Your task to perform on an android device: search for starred emails in the gmail app Image 0: 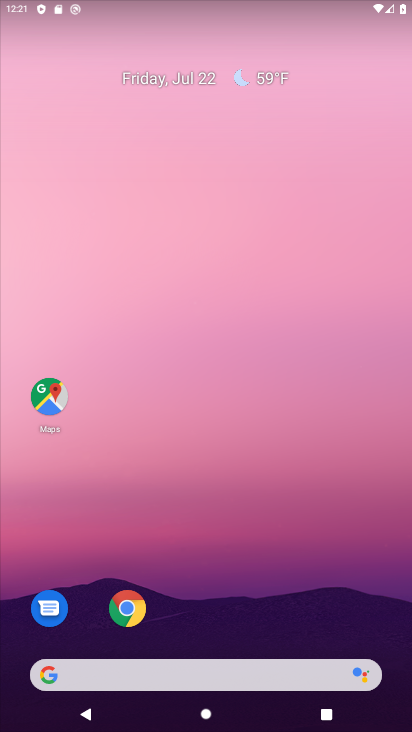
Step 0: drag from (225, 640) to (202, 111)
Your task to perform on an android device: search for starred emails in the gmail app Image 1: 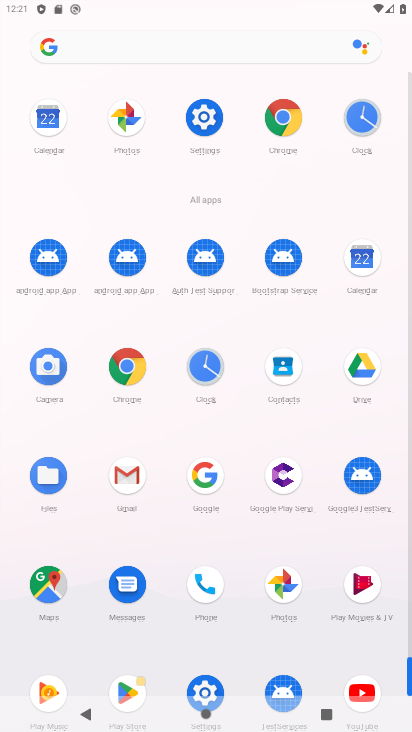
Step 1: click (130, 488)
Your task to perform on an android device: search for starred emails in the gmail app Image 2: 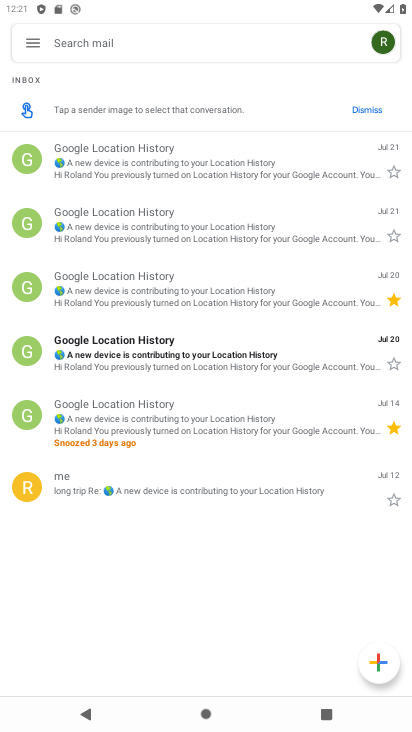
Step 2: click (27, 42)
Your task to perform on an android device: search for starred emails in the gmail app Image 3: 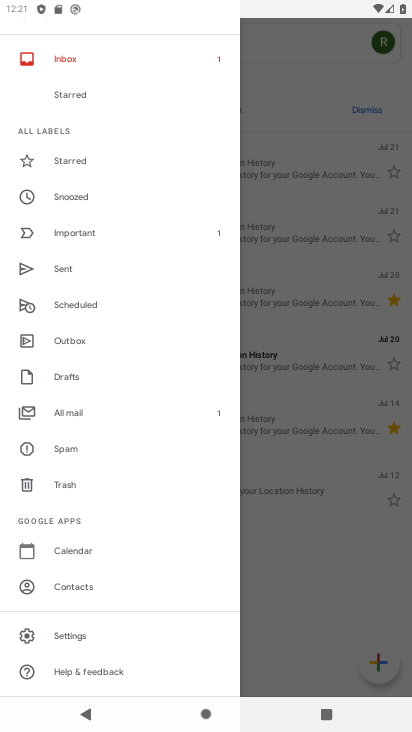
Step 3: click (79, 157)
Your task to perform on an android device: search for starred emails in the gmail app Image 4: 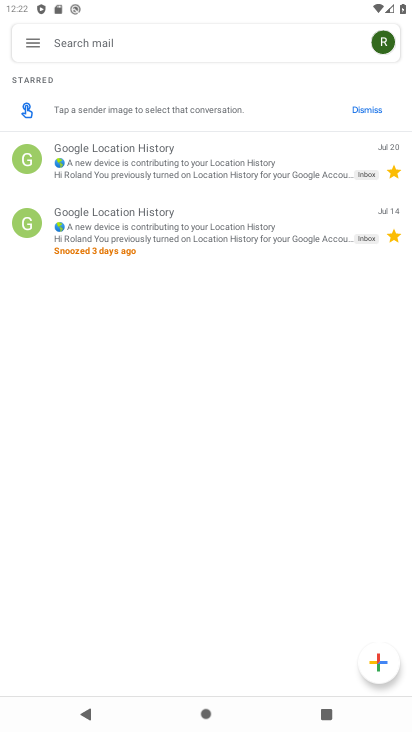
Step 4: task complete